Your task to perform on an android device: turn on wifi Image 0: 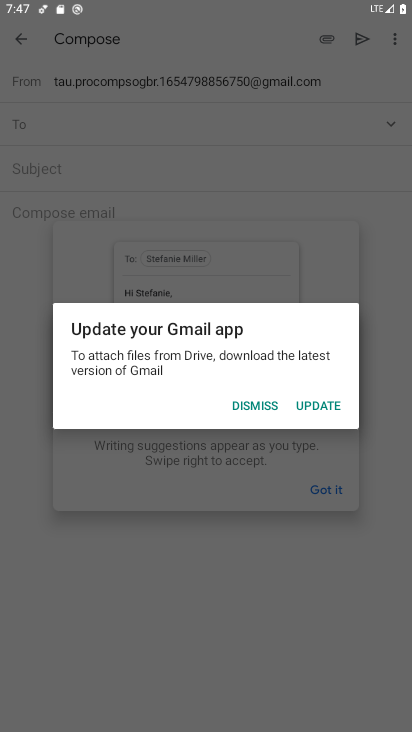
Step 0: press home button
Your task to perform on an android device: turn on wifi Image 1: 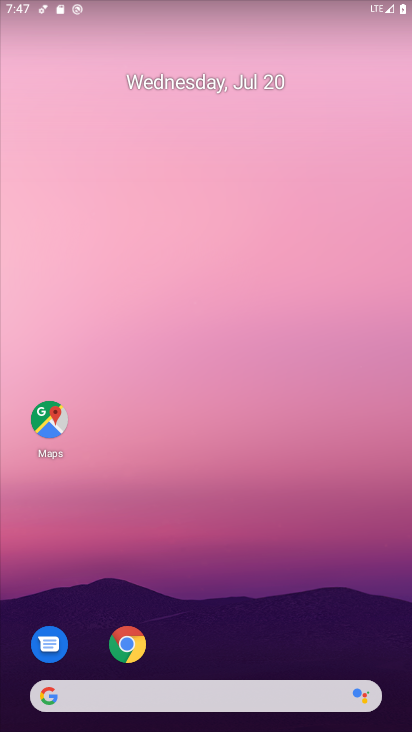
Step 1: drag from (180, 625) to (128, 171)
Your task to perform on an android device: turn on wifi Image 2: 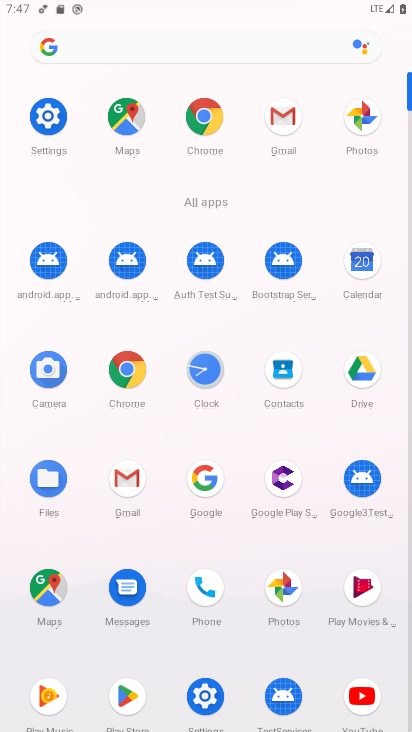
Step 2: click (42, 118)
Your task to perform on an android device: turn on wifi Image 3: 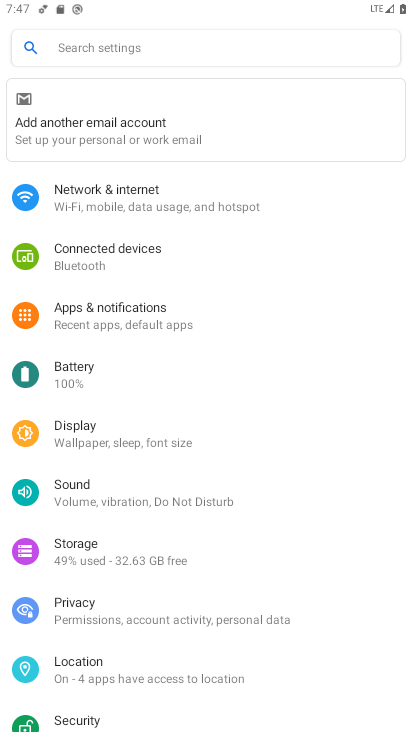
Step 3: click (81, 206)
Your task to perform on an android device: turn on wifi Image 4: 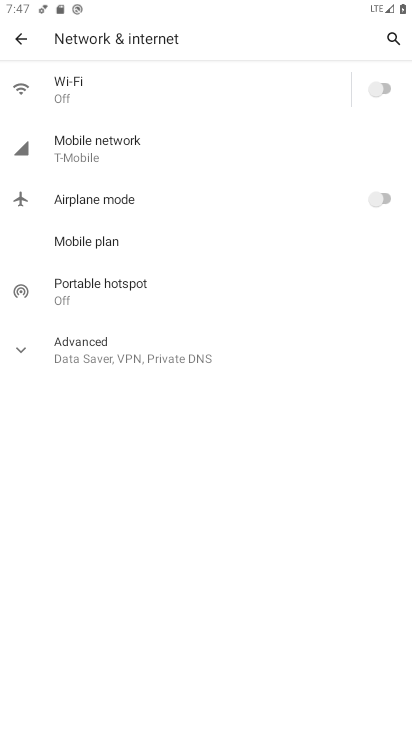
Step 4: click (373, 86)
Your task to perform on an android device: turn on wifi Image 5: 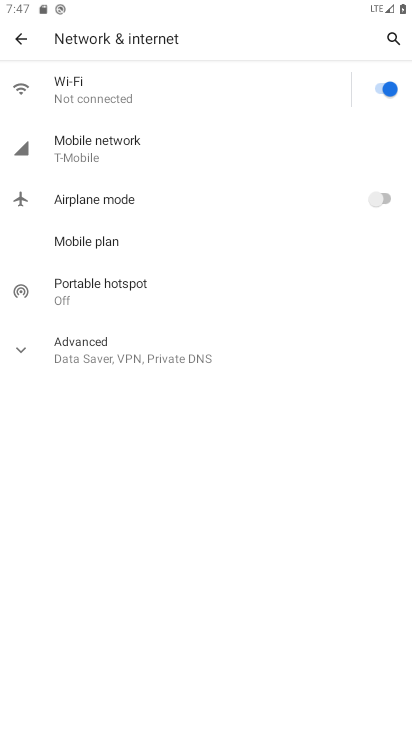
Step 5: task complete